Your task to perform on an android device: Clear the shopping cart on bestbuy. Image 0: 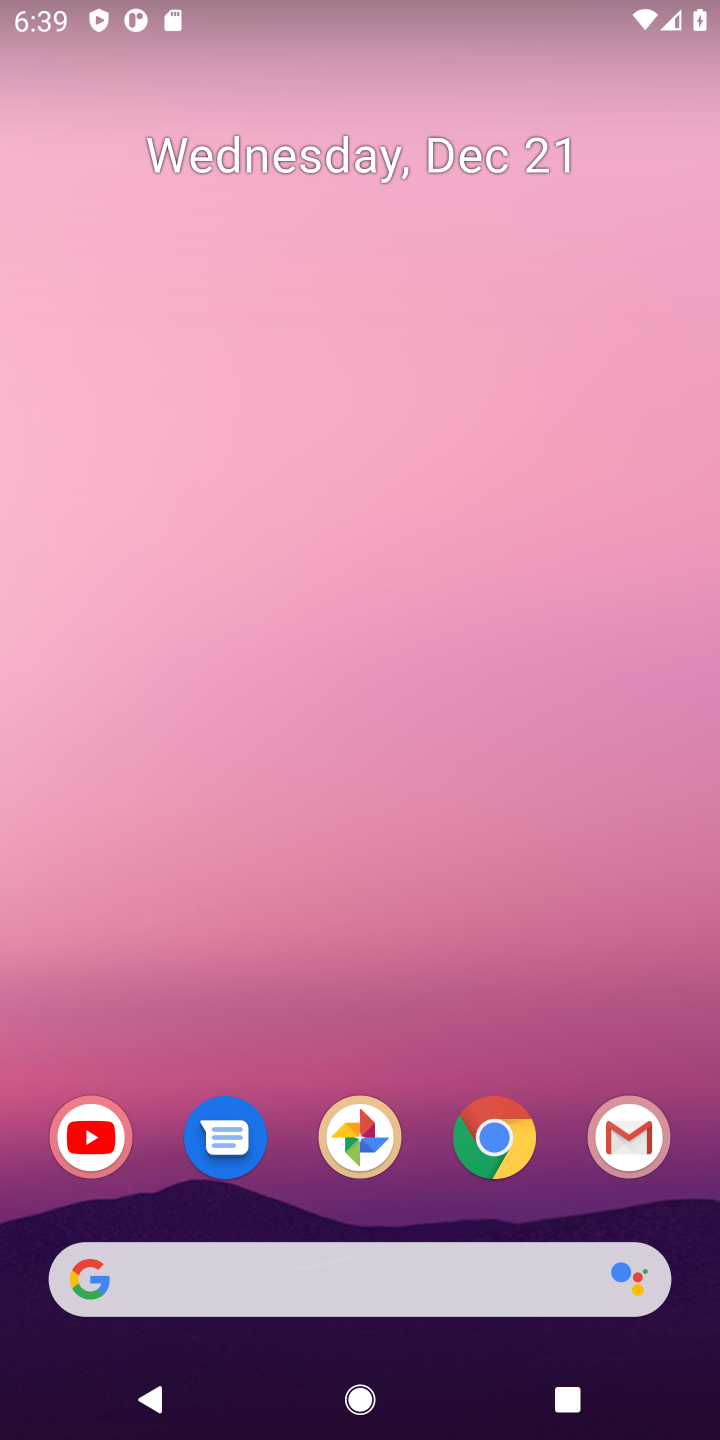
Step 0: click (501, 1142)
Your task to perform on an android device: Clear the shopping cart on bestbuy. Image 1: 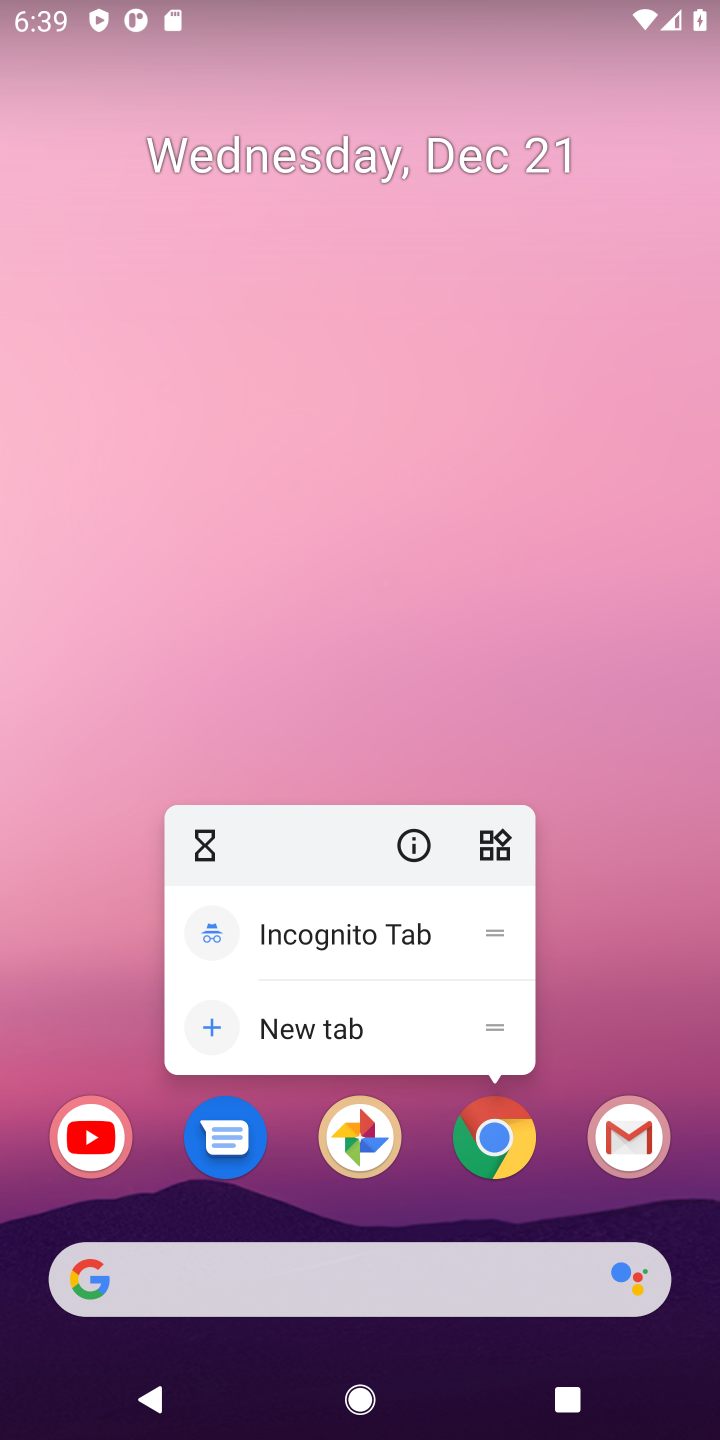
Step 1: click (501, 1142)
Your task to perform on an android device: Clear the shopping cart on bestbuy. Image 2: 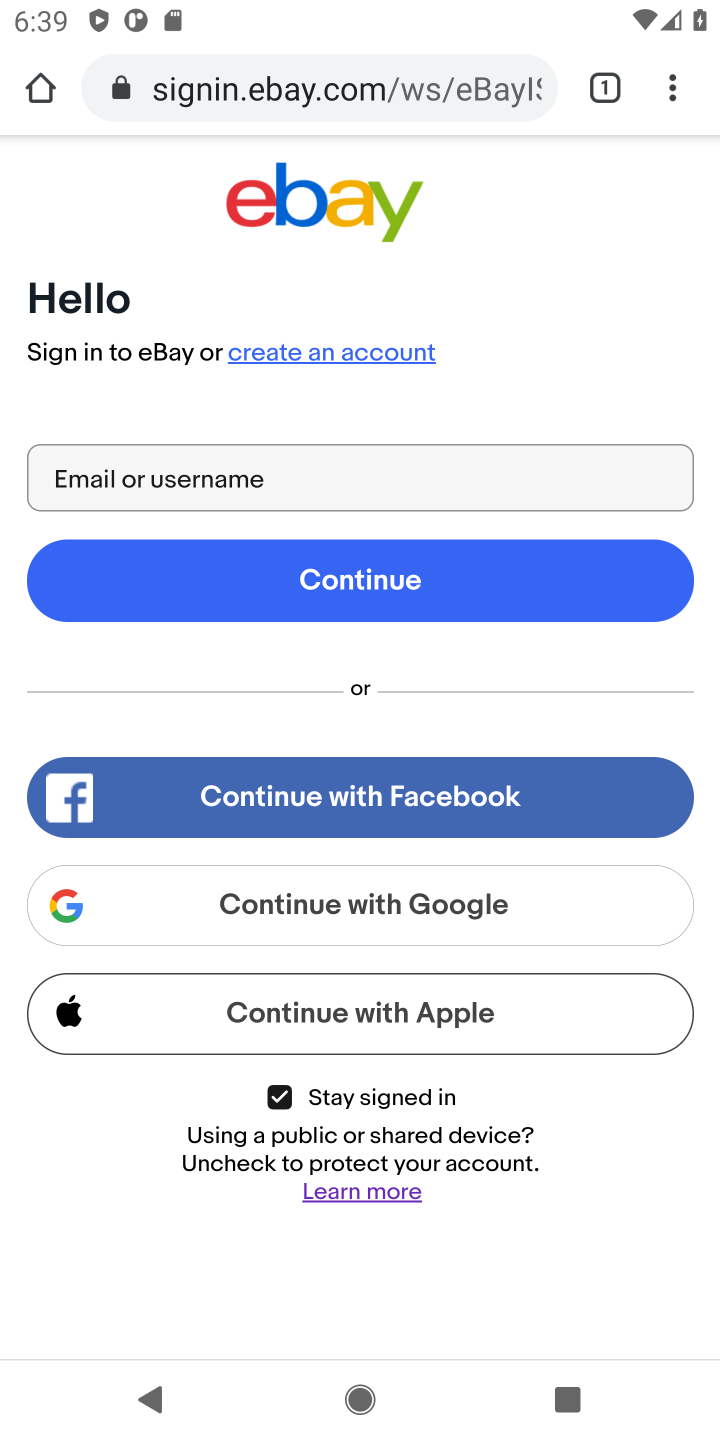
Step 2: click (239, 90)
Your task to perform on an android device: Clear the shopping cart on bestbuy. Image 3: 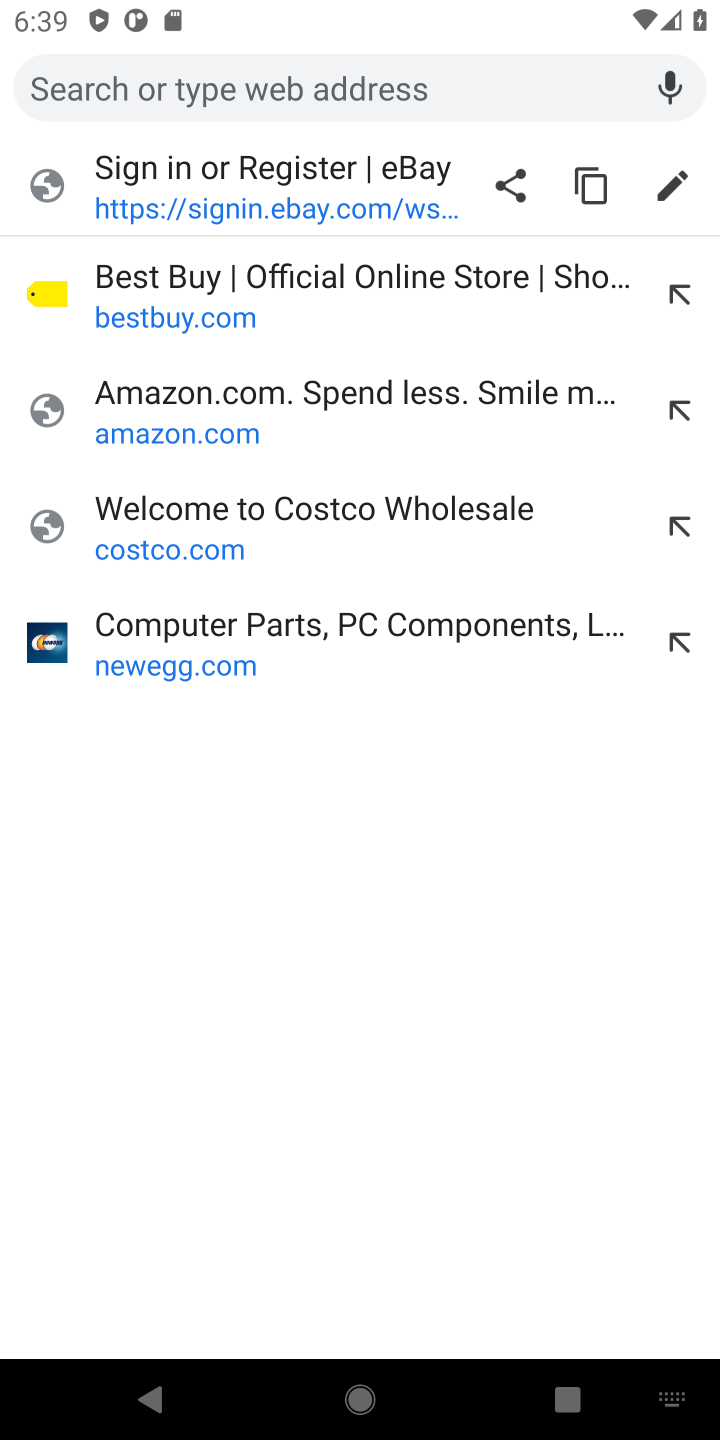
Step 3: click (176, 341)
Your task to perform on an android device: Clear the shopping cart on bestbuy. Image 4: 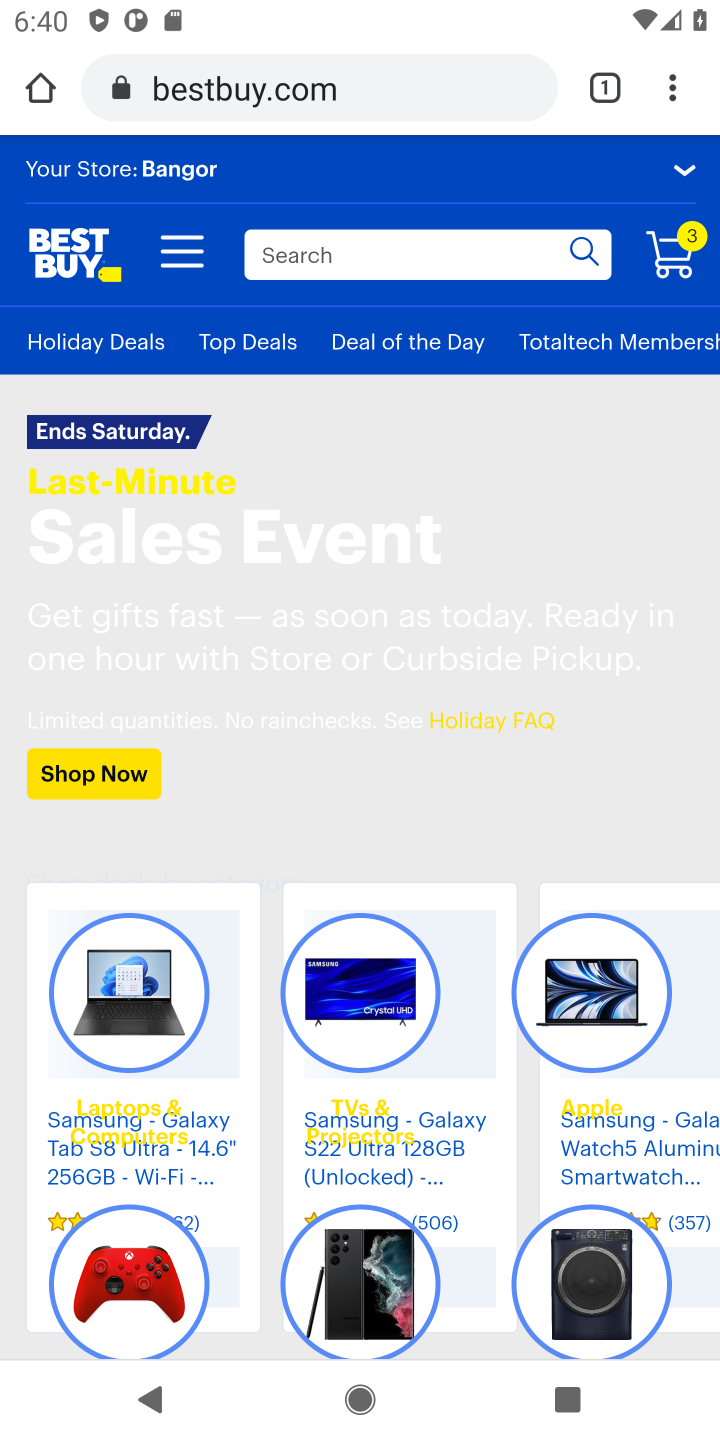
Step 4: click (679, 255)
Your task to perform on an android device: Clear the shopping cart on bestbuy. Image 5: 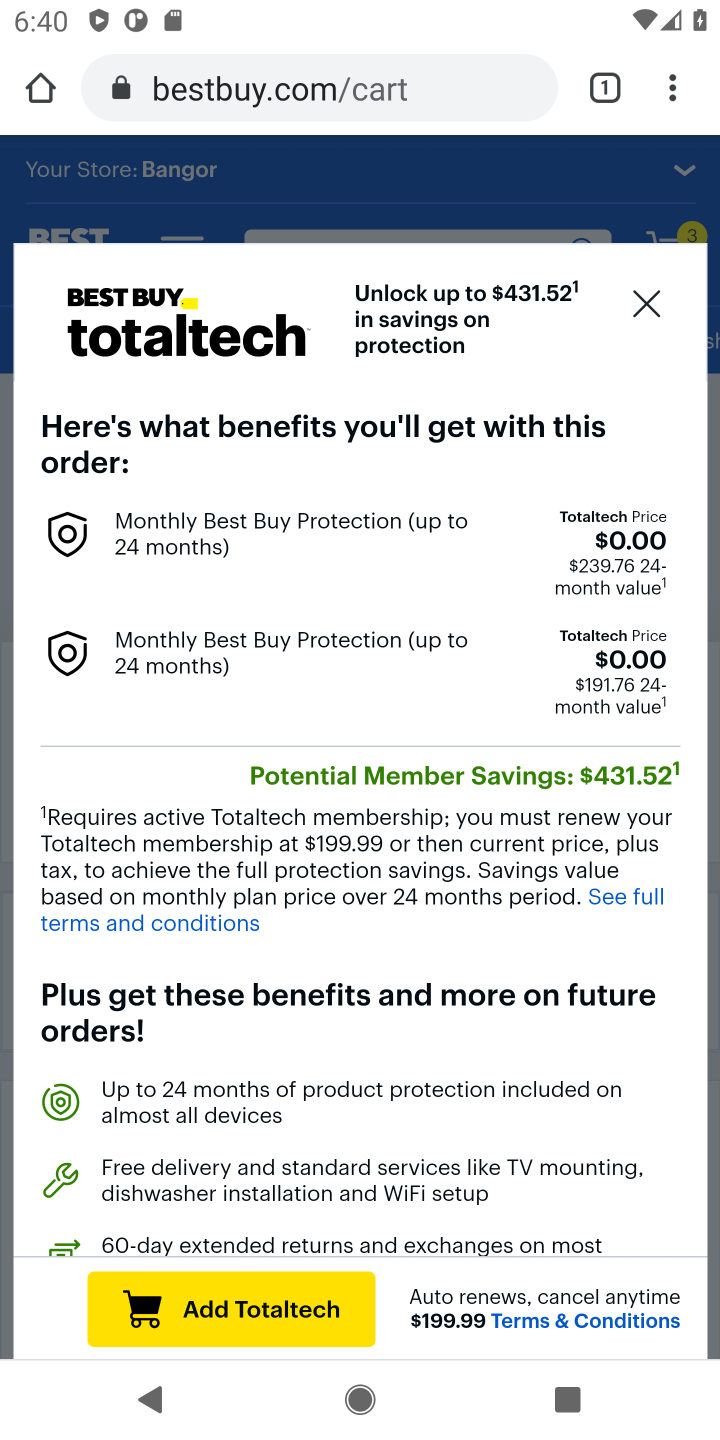
Step 5: click (637, 309)
Your task to perform on an android device: Clear the shopping cart on bestbuy. Image 6: 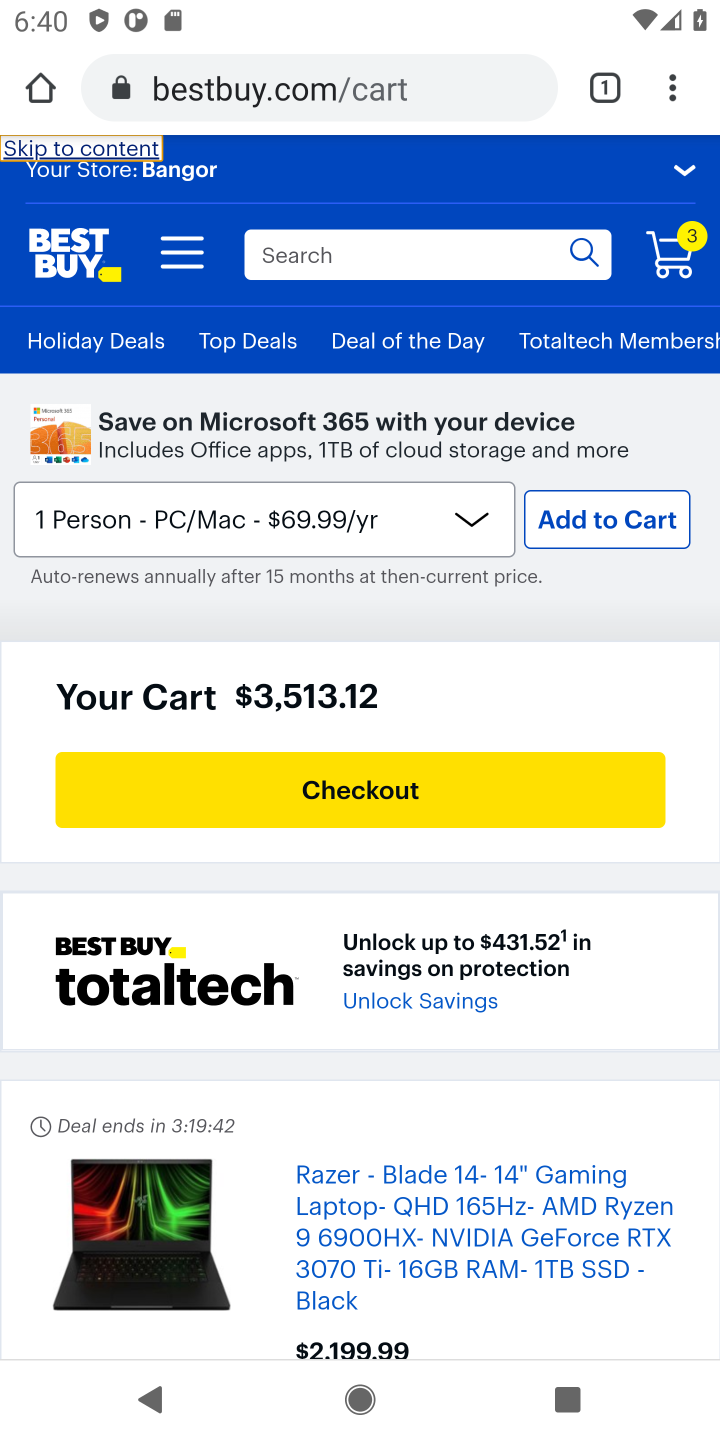
Step 6: drag from (181, 848) to (186, 203)
Your task to perform on an android device: Clear the shopping cart on bestbuy. Image 7: 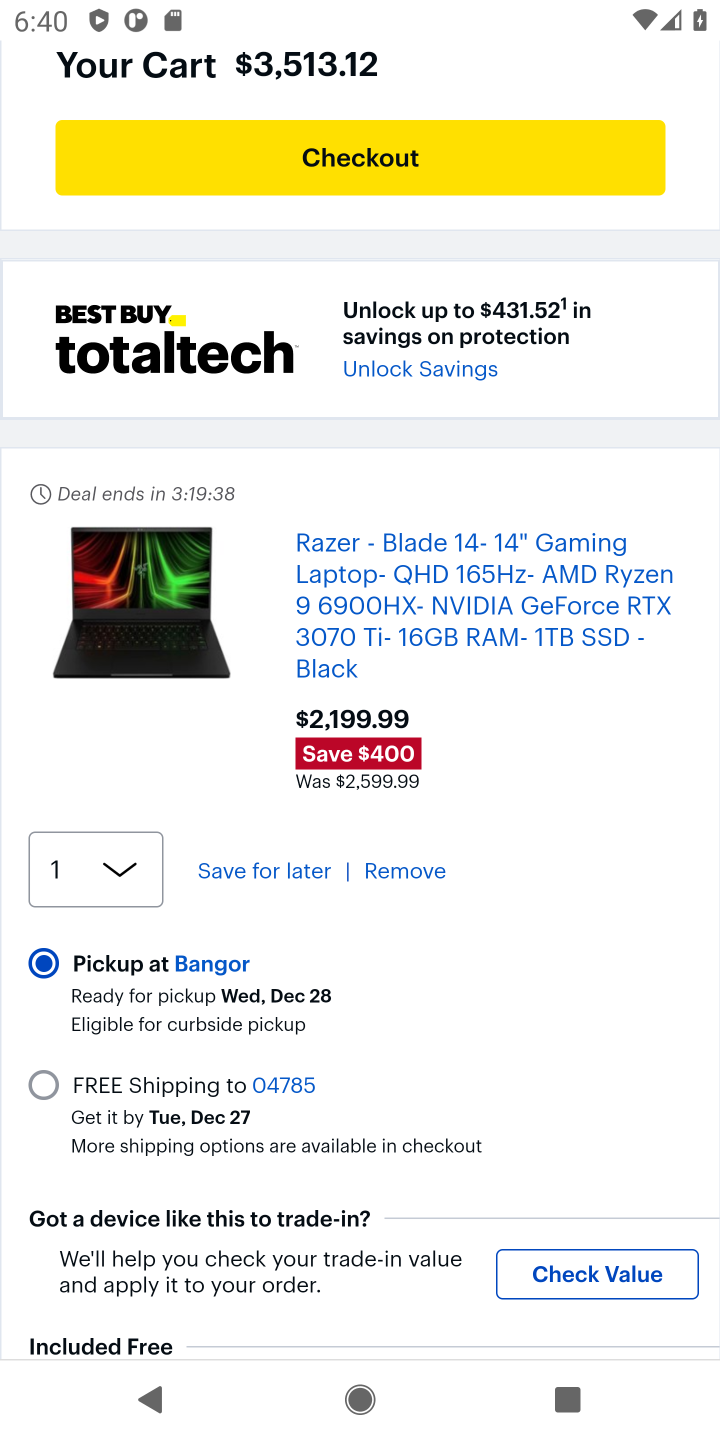
Step 7: click (387, 876)
Your task to perform on an android device: Clear the shopping cart on bestbuy. Image 8: 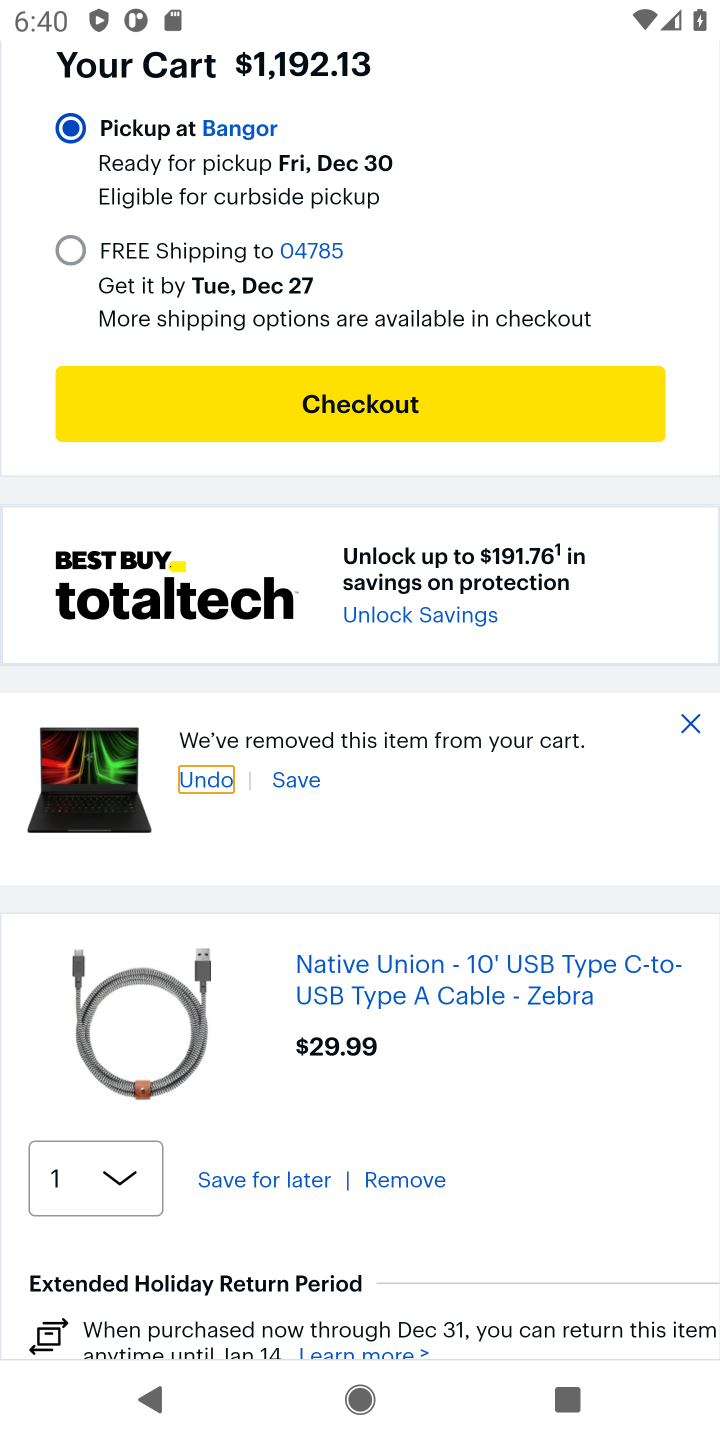
Step 8: click (390, 1185)
Your task to perform on an android device: Clear the shopping cart on bestbuy. Image 9: 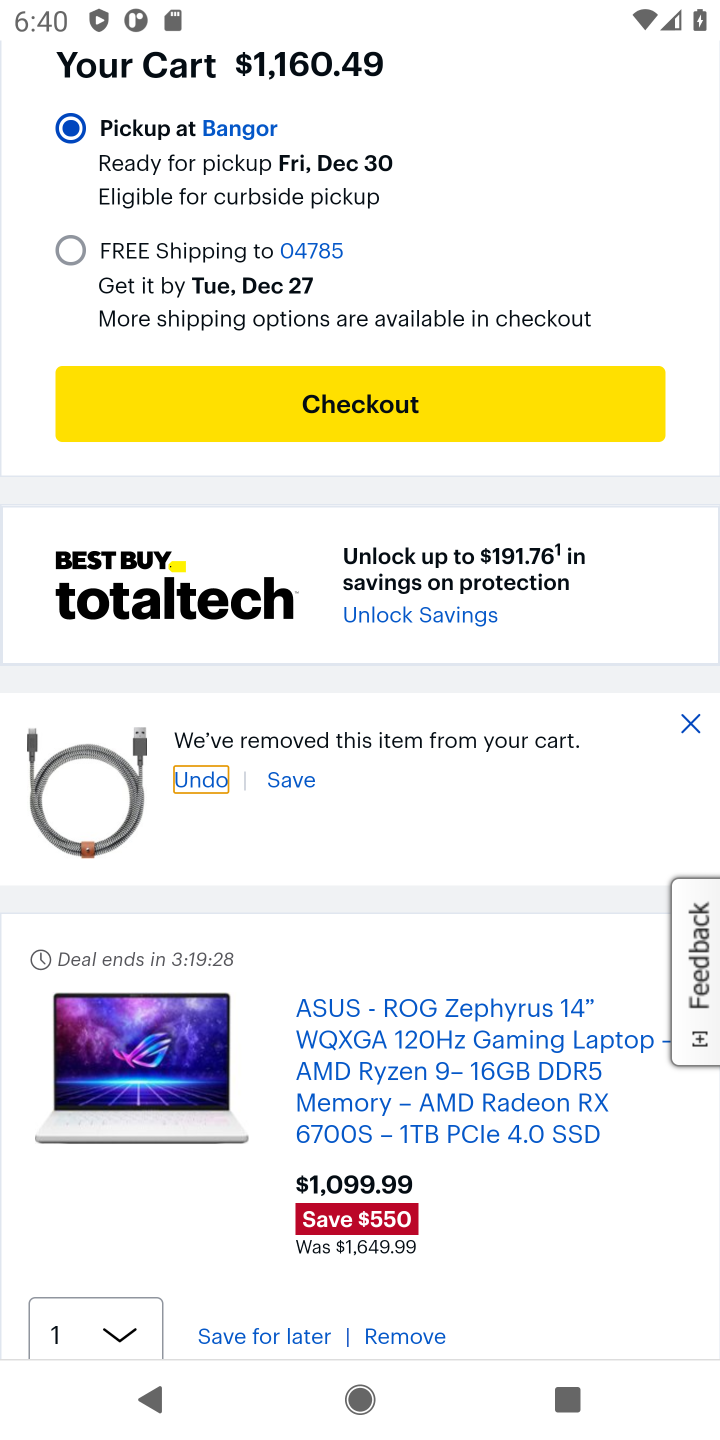
Step 9: click (378, 1336)
Your task to perform on an android device: Clear the shopping cart on bestbuy. Image 10: 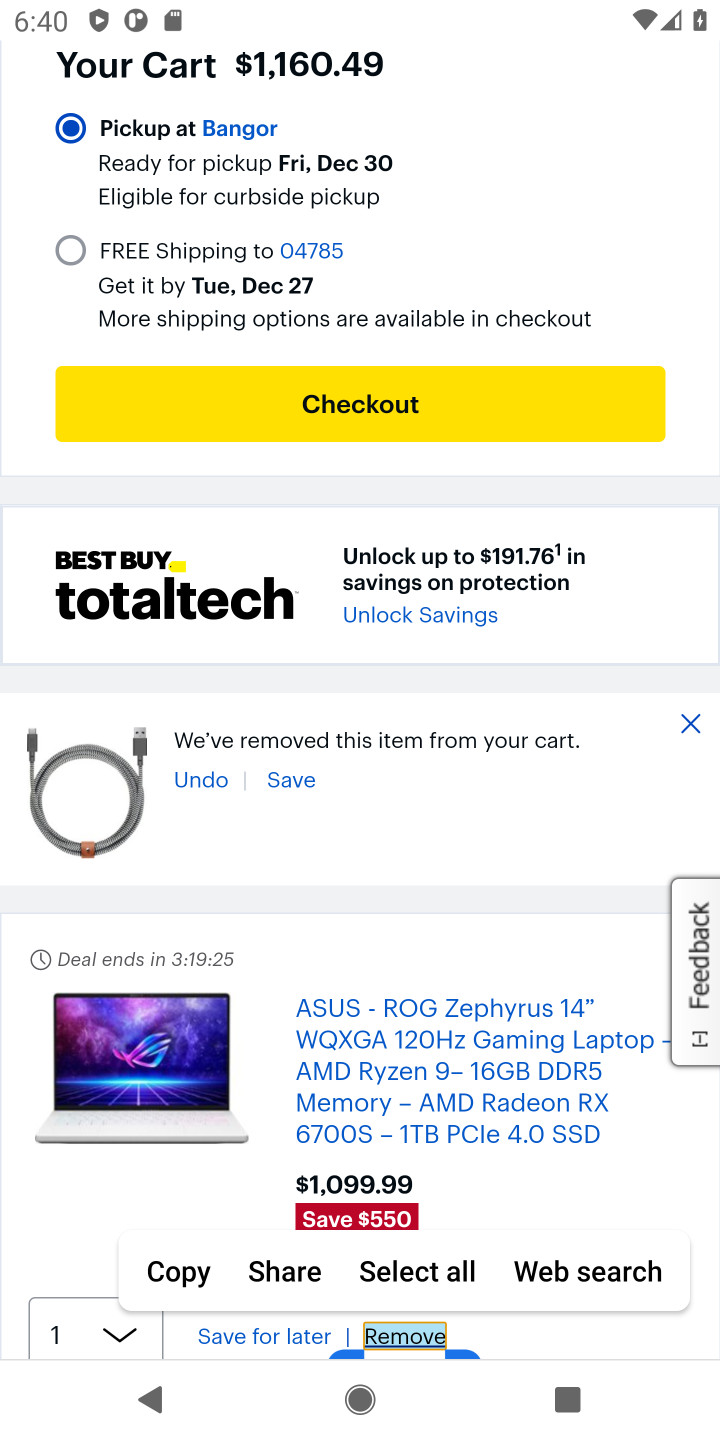
Step 10: click (378, 1336)
Your task to perform on an android device: Clear the shopping cart on bestbuy. Image 11: 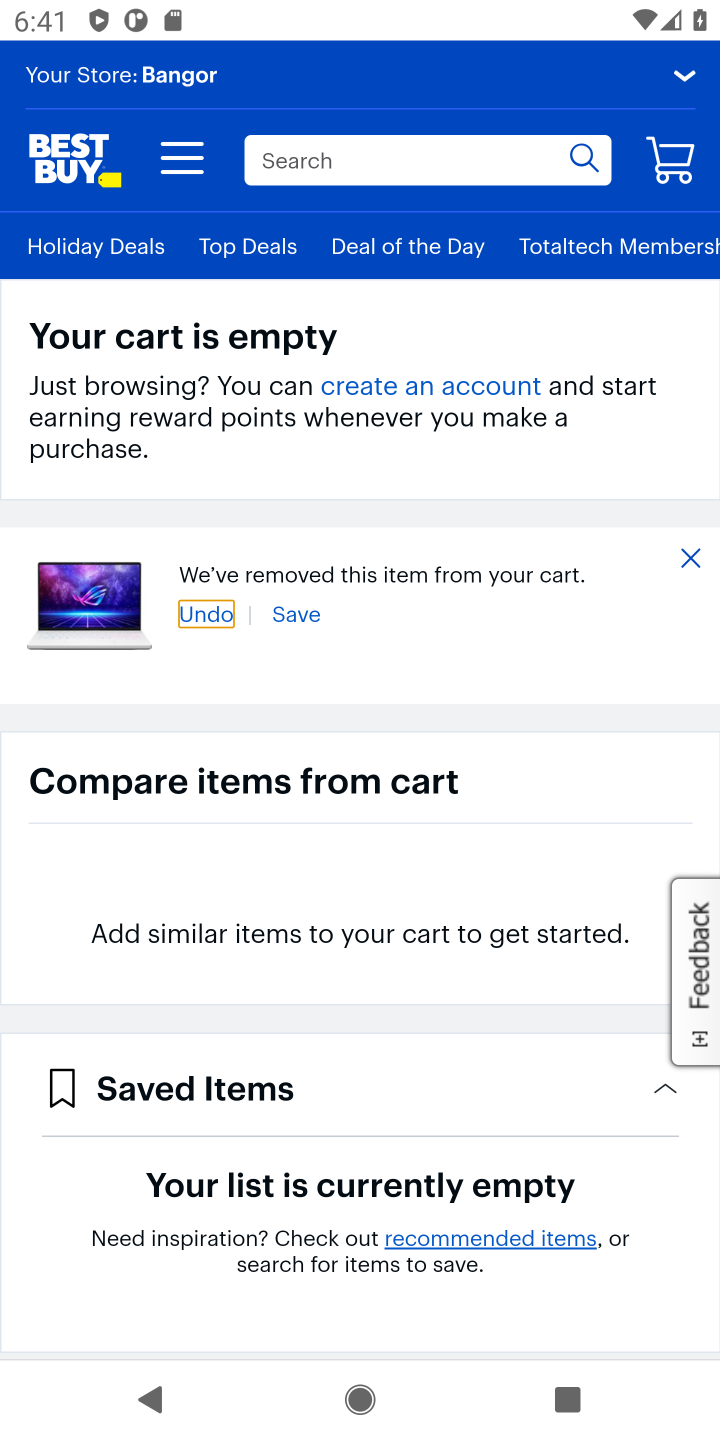
Step 11: task complete